Your task to perform on an android device: add a contact Image 0: 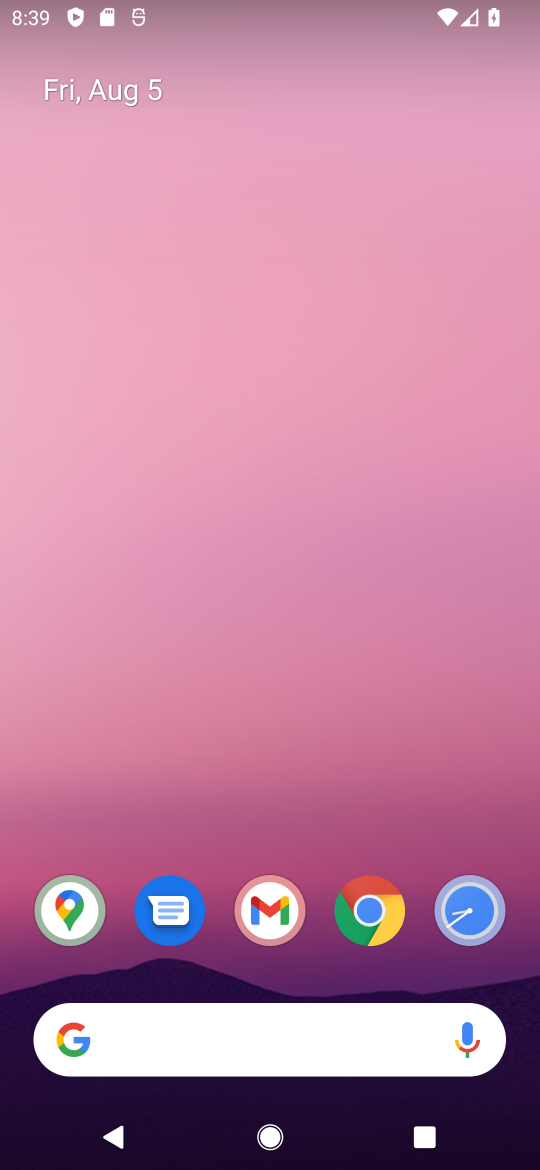
Step 0: drag from (346, 842) to (455, 189)
Your task to perform on an android device: add a contact Image 1: 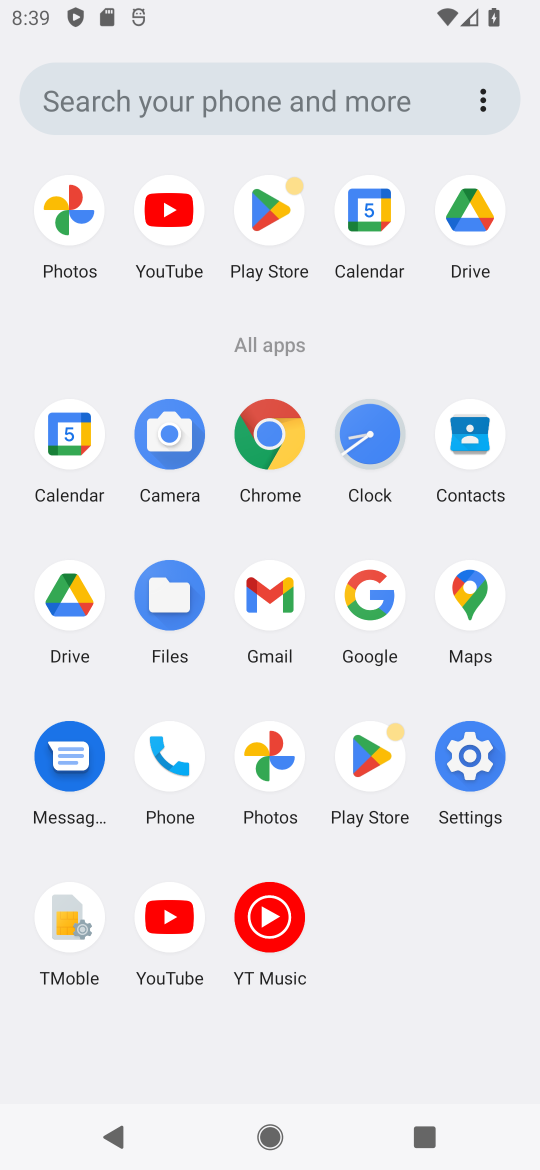
Step 1: click (472, 434)
Your task to perform on an android device: add a contact Image 2: 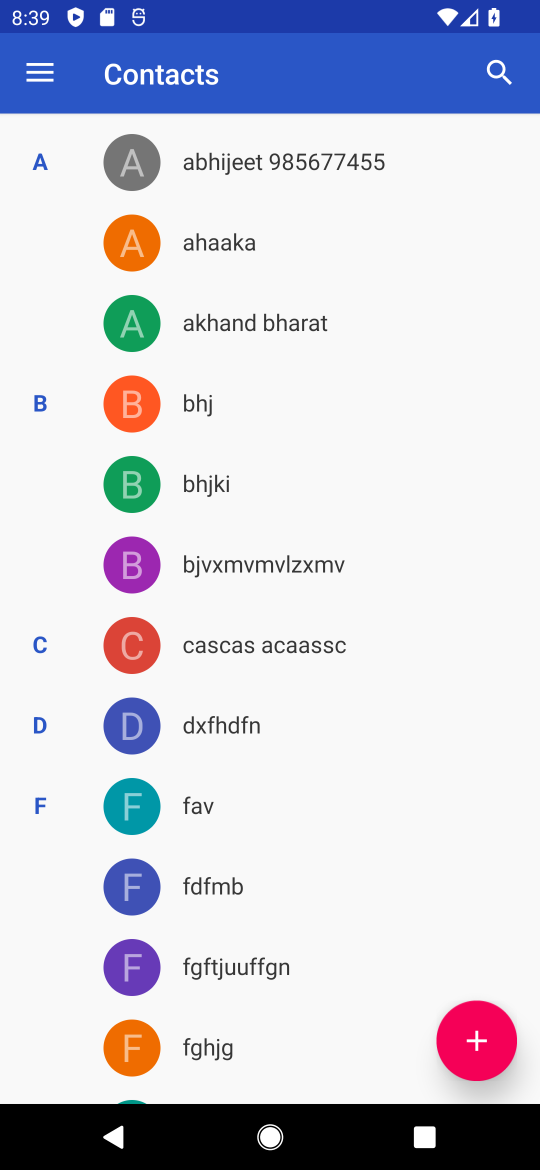
Step 2: click (468, 1023)
Your task to perform on an android device: add a contact Image 3: 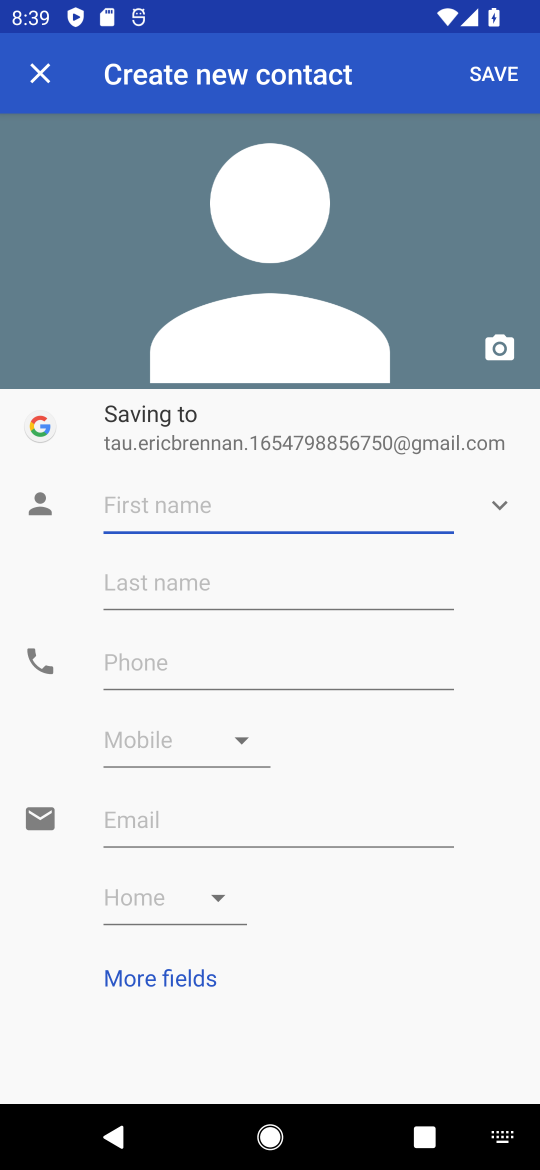
Step 3: click (151, 500)
Your task to perform on an android device: add a contact Image 4: 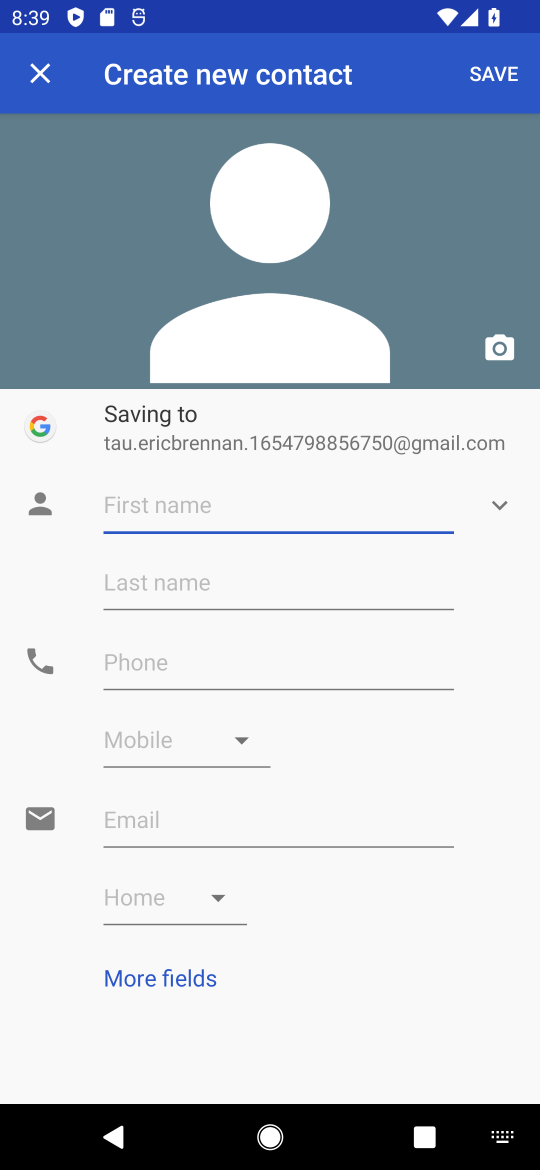
Step 4: type "awersdd"
Your task to perform on an android device: add a contact Image 5: 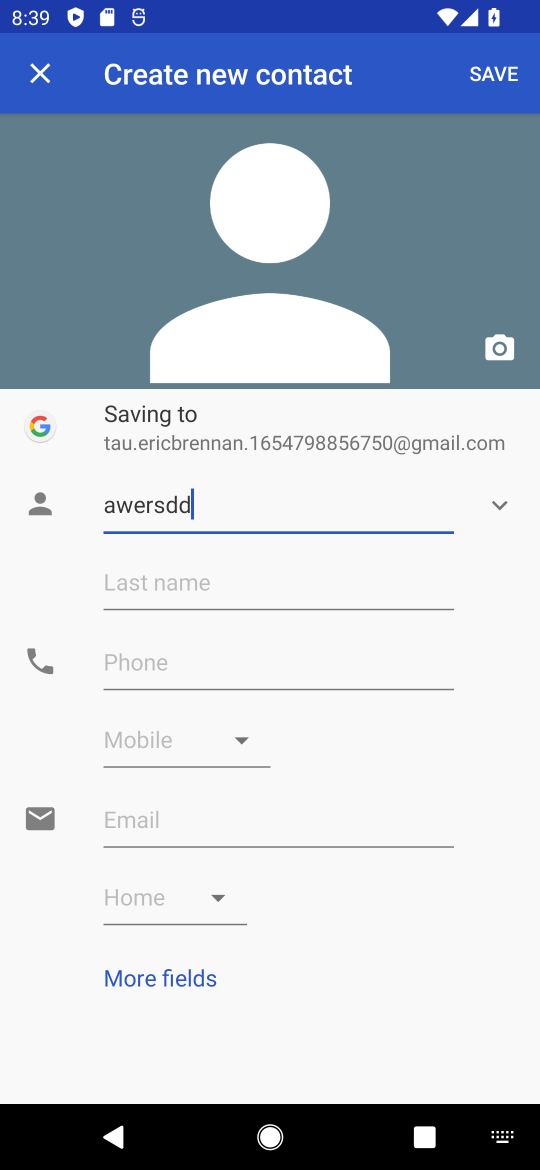
Step 5: click (152, 664)
Your task to perform on an android device: add a contact Image 6: 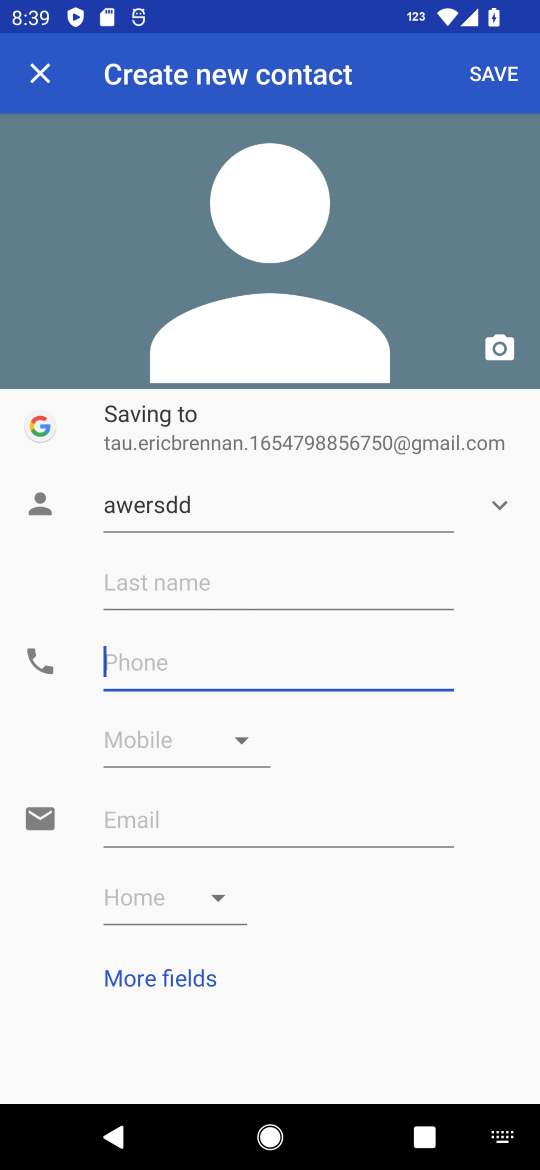
Step 6: type "13224455"
Your task to perform on an android device: add a contact Image 7: 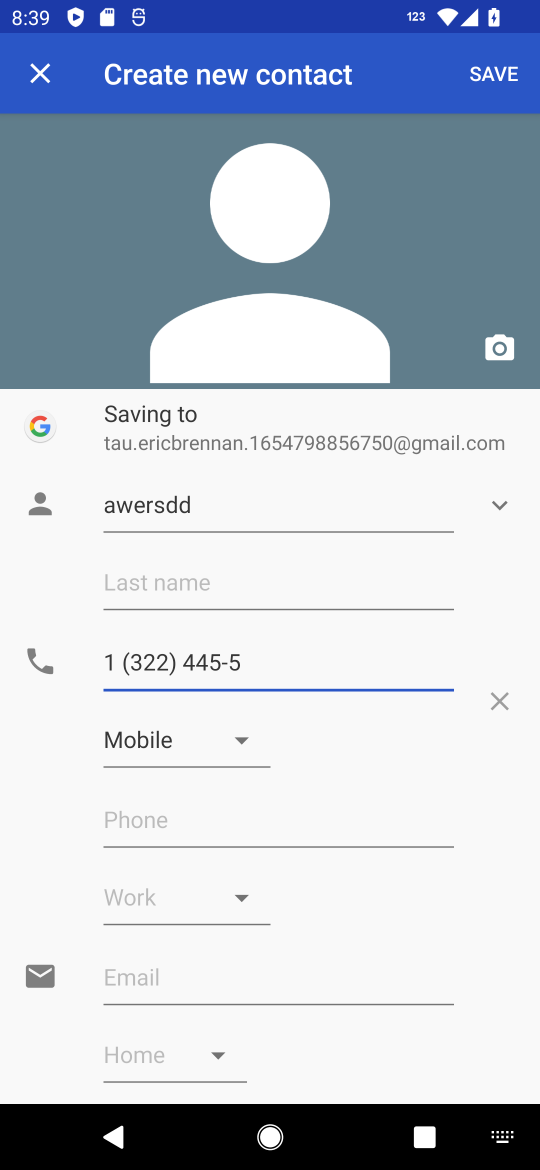
Step 7: click (502, 63)
Your task to perform on an android device: add a contact Image 8: 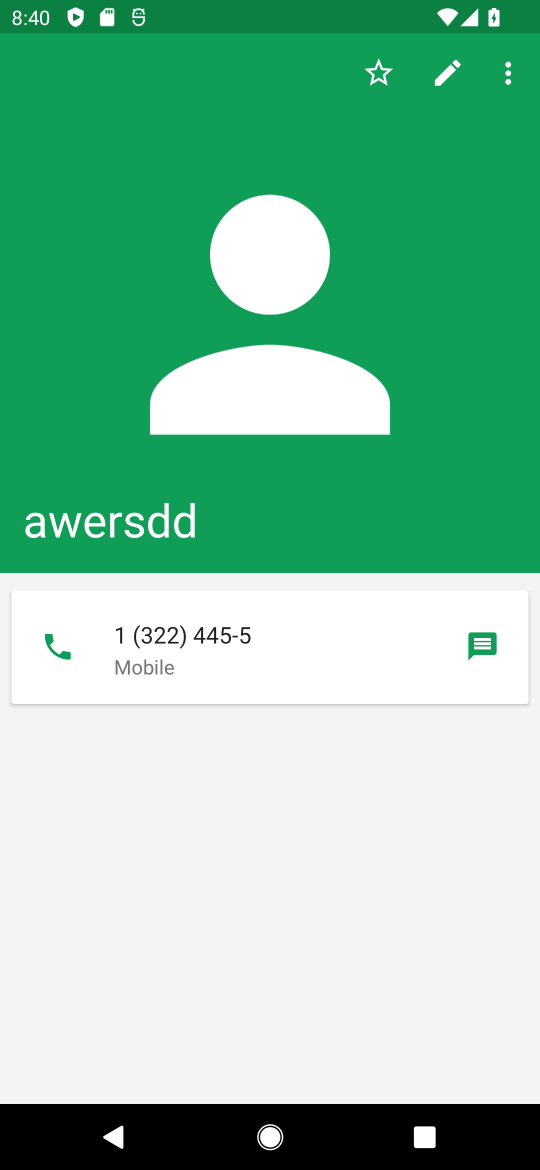
Step 8: task complete